Your task to perform on an android device: Go to Maps Image 0: 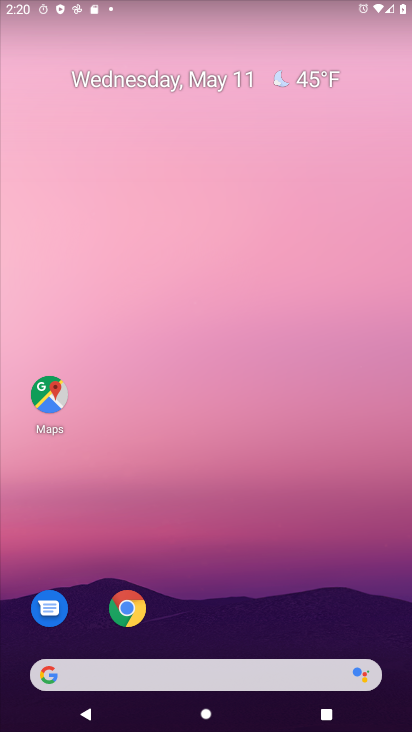
Step 0: click (50, 396)
Your task to perform on an android device: Go to Maps Image 1: 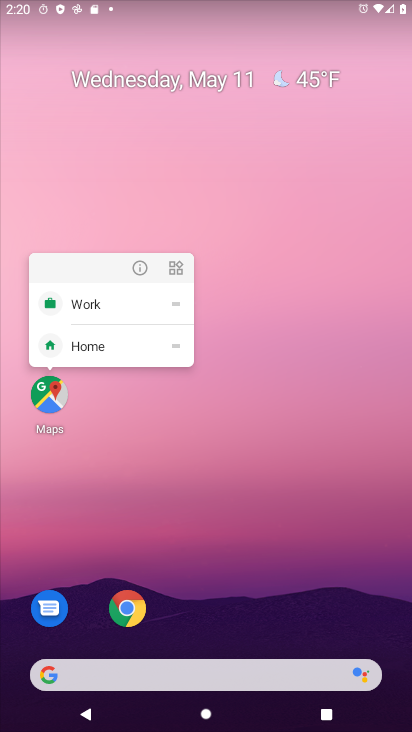
Step 1: click (50, 396)
Your task to perform on an android device: Go to Maps Image 2: 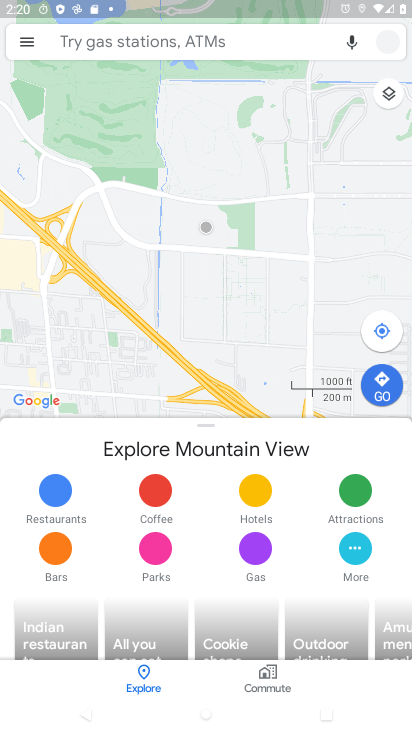
Step 2: task complete